Your task to perform on an android device: Open Maps and search for coffee Image 0: 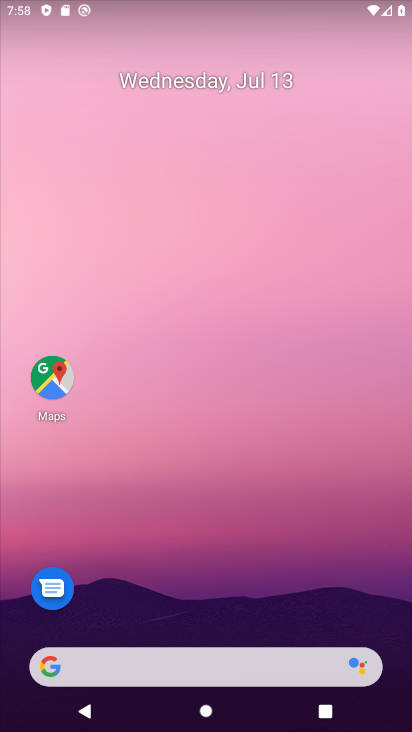
Step 0: click (60, 399)
Your task to perform on an android device: Open Maps and search for coffee Image 1: 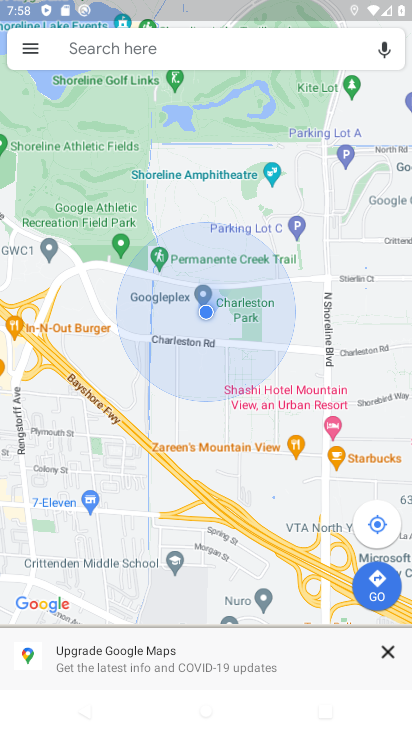
Step 1: click (219, 49)
Your task to perform on an android device: Open Maps and search for coffee Image 2: 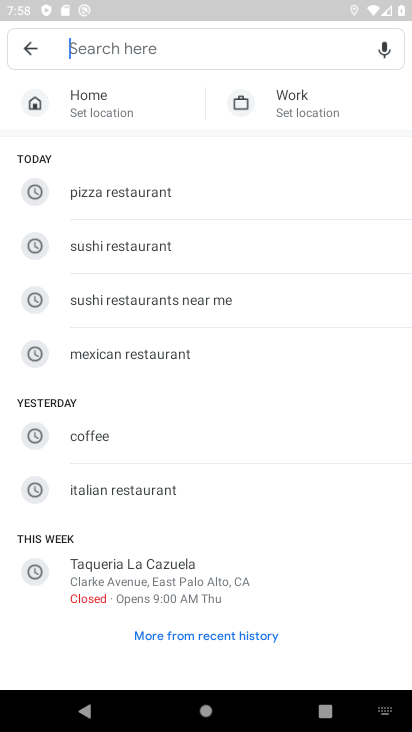
Step 2: click (101, 428)
Your task to perform on an android device: Open Maps and search for coffee Image 3: 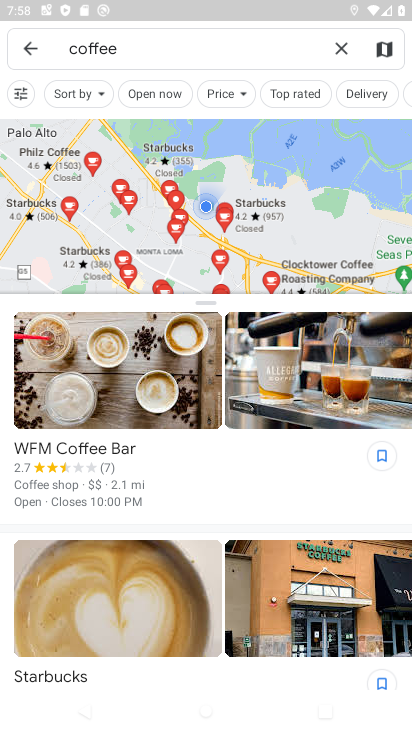
Step 3: task complete